Your task to perform on an android device: uninstall "Google Pay: Save, Pay, Manage" Image 0: 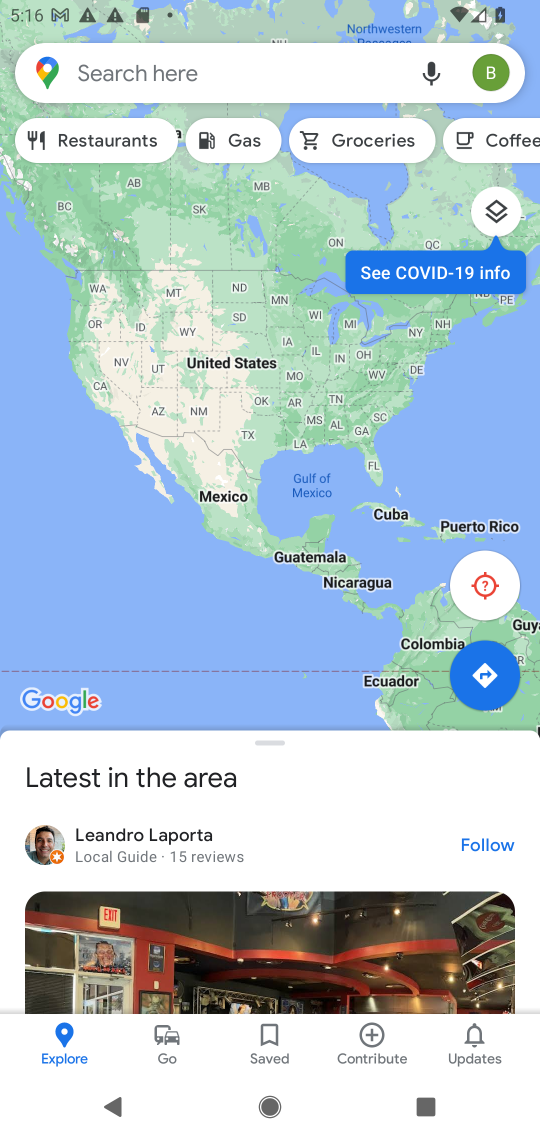
Step 0: click (229, 71)
Your task to perform on an android device: uninstall "Google Pay: Save, Pay, Manage" Image 1: 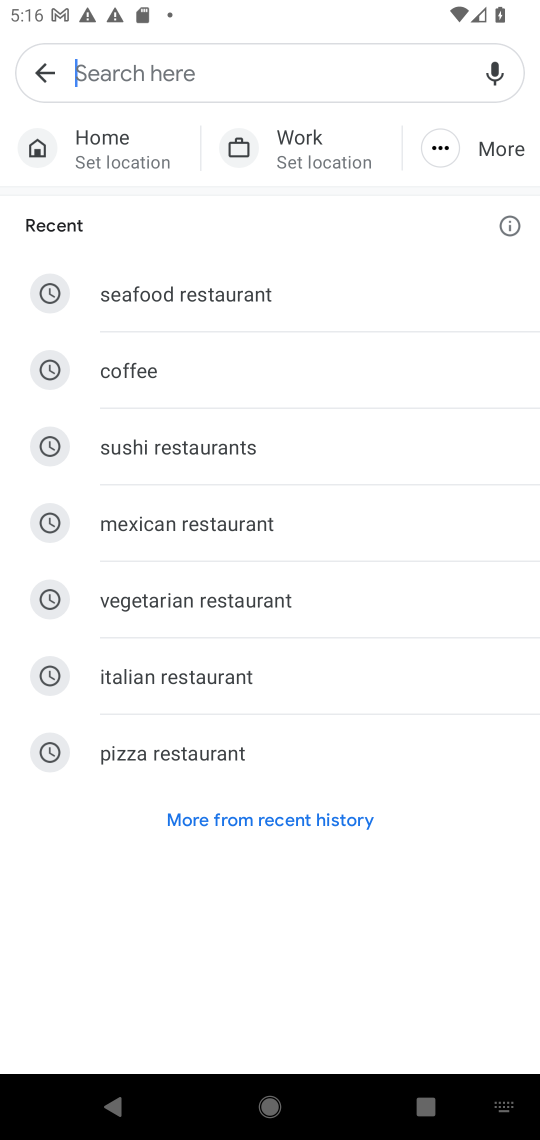
Step 1: type "Google Pay: Save, Pay, Manage"
Your task to perform on an android device: uninstall "Google Pay: Save, Pay, Manage" Image 2: 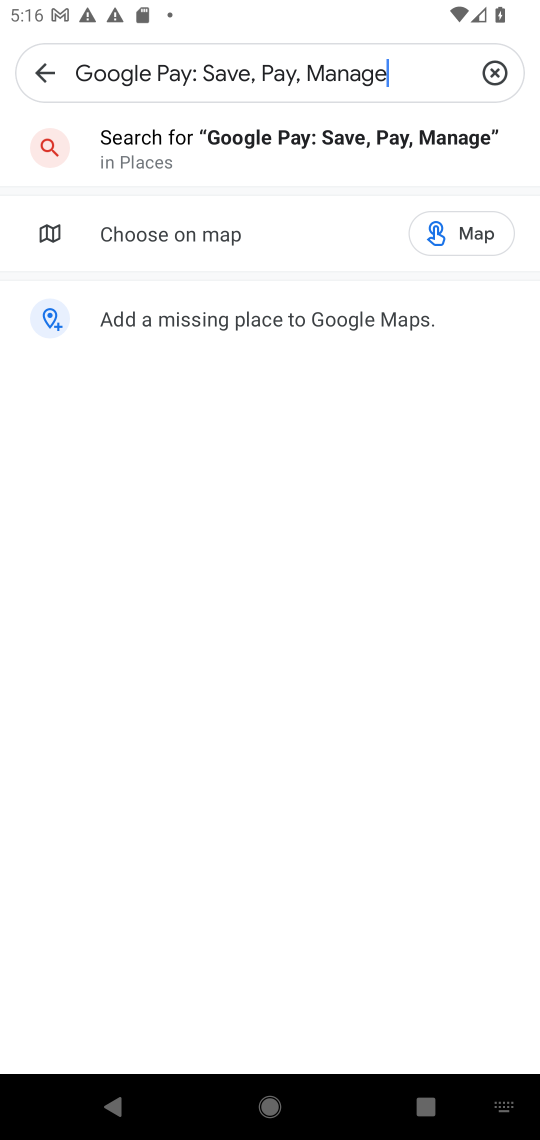
Step 2: press home button
Your task to perform on an android device: uninstall "Google Pay: Save, Pay, Manage" Image 3: 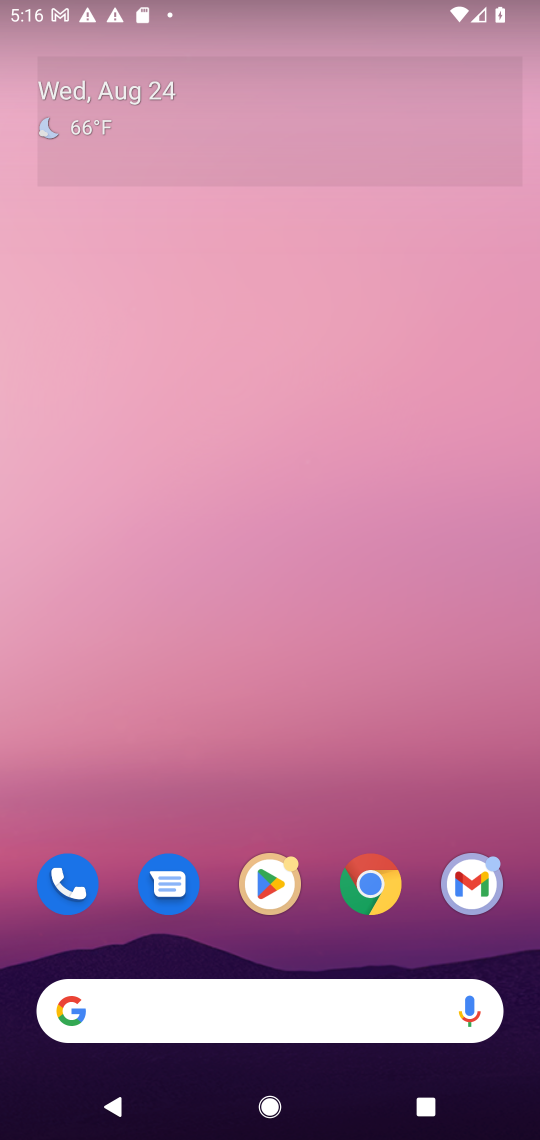
Step 3: click (255, 889)
Your task to perform on an android device: uninstall "Google Pay: Save, Pay, Manage" Image 4: 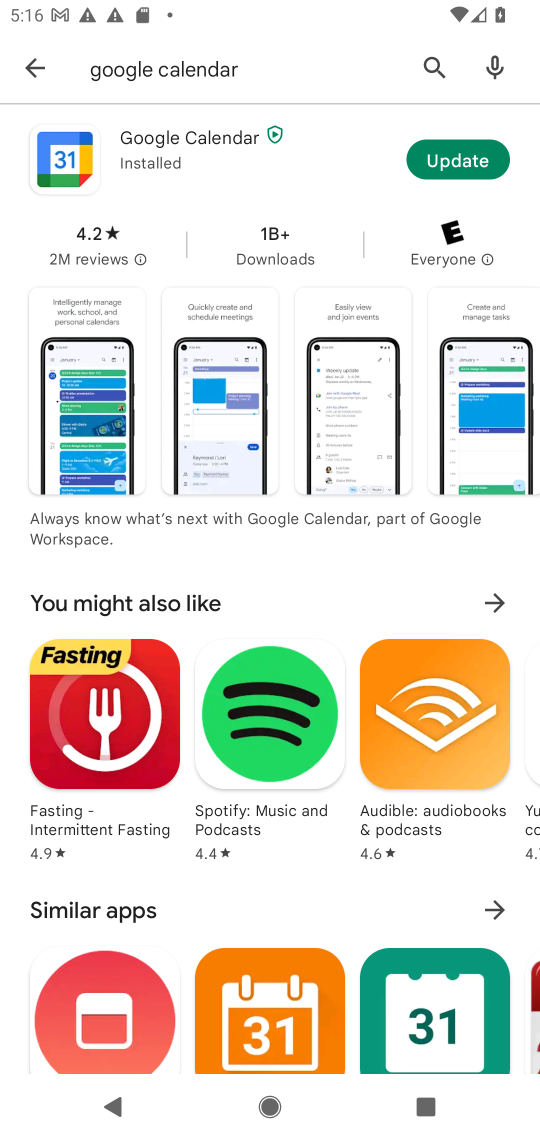
Step 4: click (27, 57)
Your task to perform on an android device: uninstall "Google Pay: Save, Pay, Manage" Image 5: 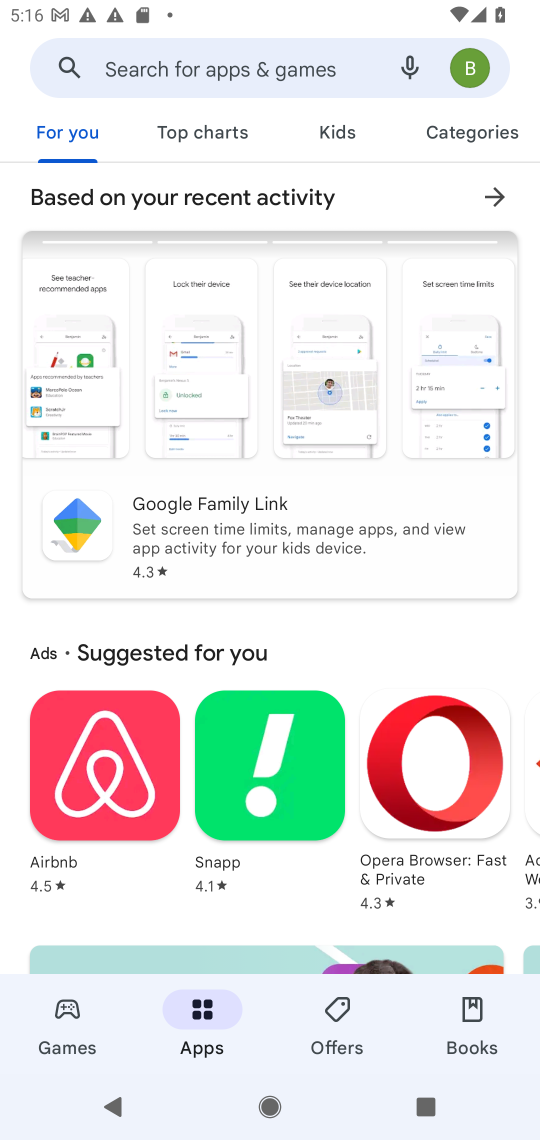
Step 5: click (187, 51)
Your task to perform on an android device: uninstall "Google Pay: Save, Pay, Manage" Image 6: 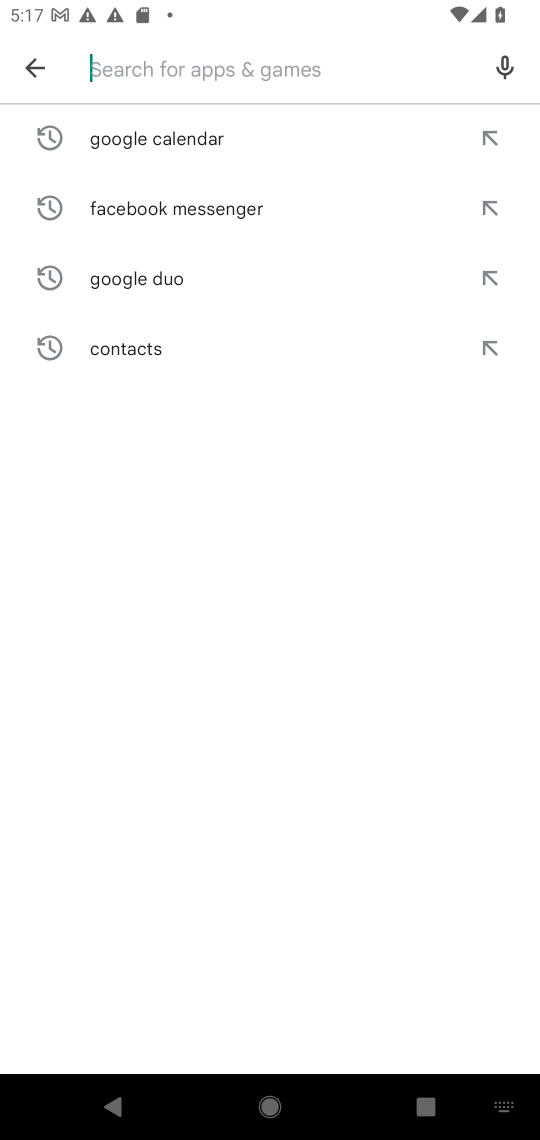
Step 6: type "Google Pay:"
Your task to perform on an android device: uninstall "Google Pay: Save, Pay, Manage" Image 7: 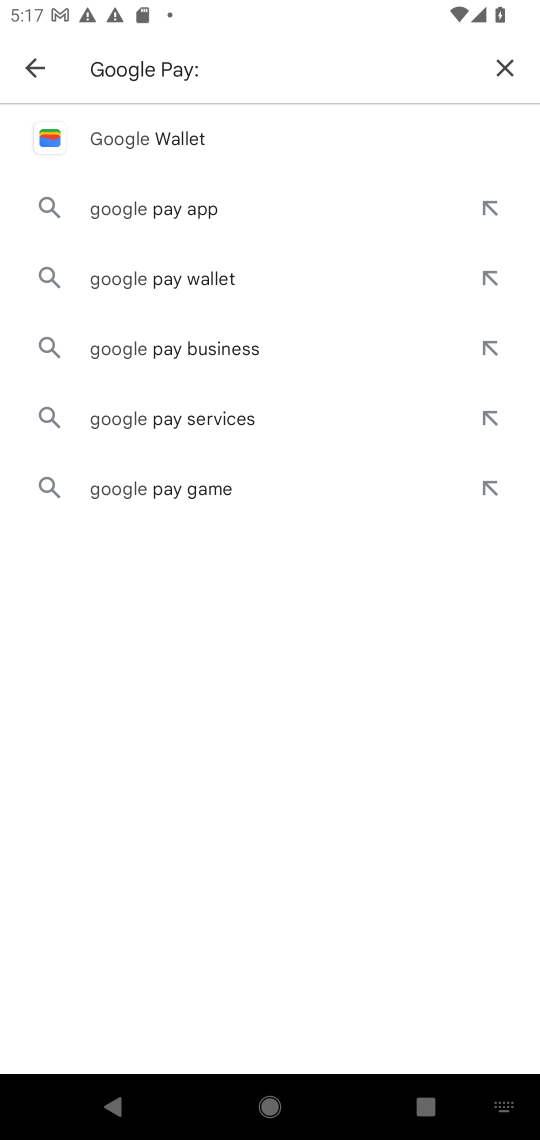
Step 7: click (204, 211)
Your task to perform on an android device: uninstall "Google Pay: Save, Pay, Manage" Image 8: 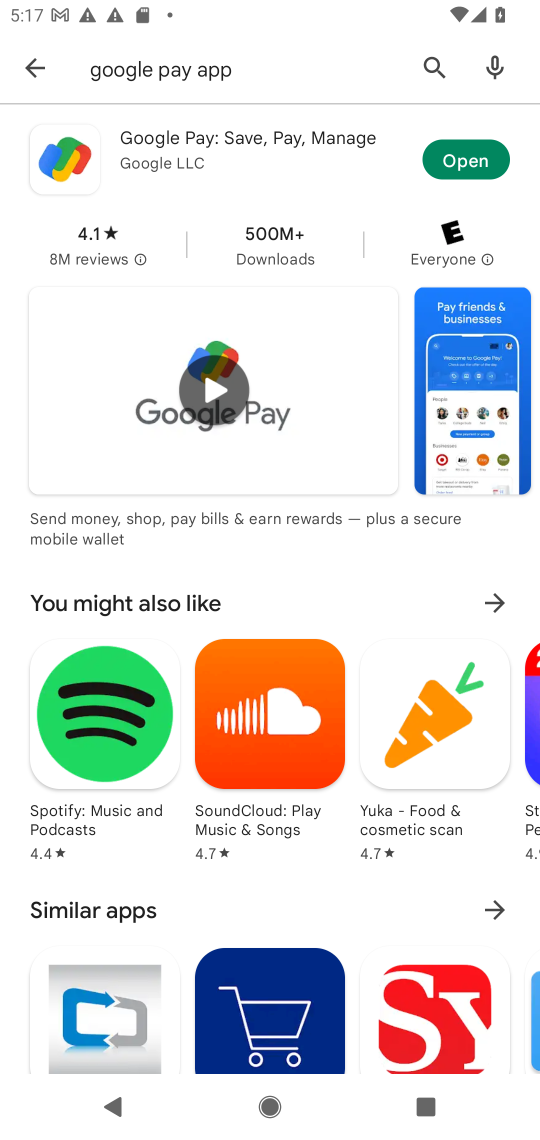
Step 8: click (252, 146)
Your task to perform on an android device: uninstall "Google Pay: Save, Pay, Manage" Image 9: 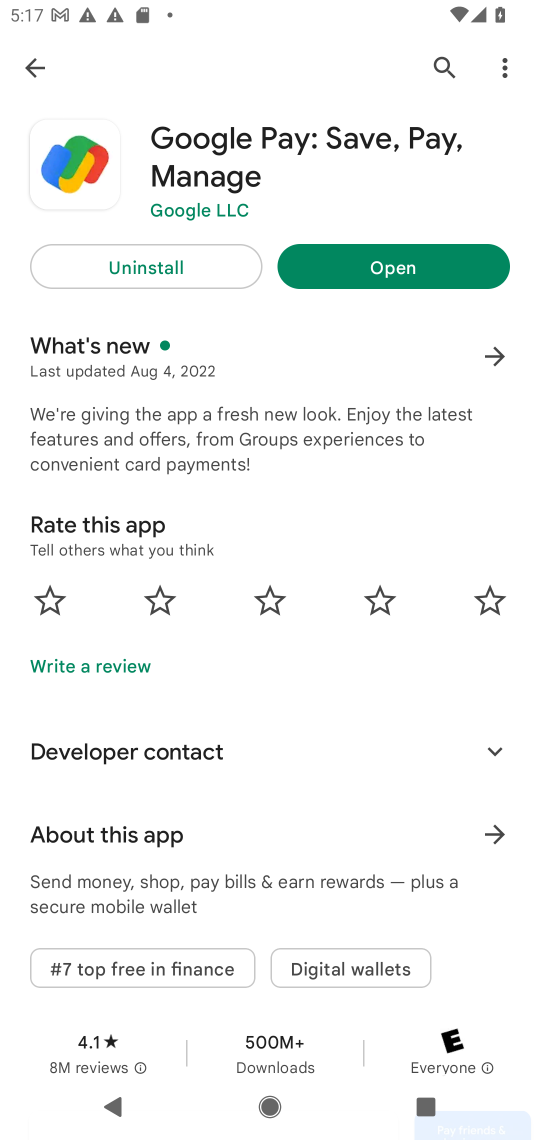
Step 9: click (123, 259)
Your task to perform on an android device: uninstall "Google Pay: Save, Pay, Manage" Image 10: 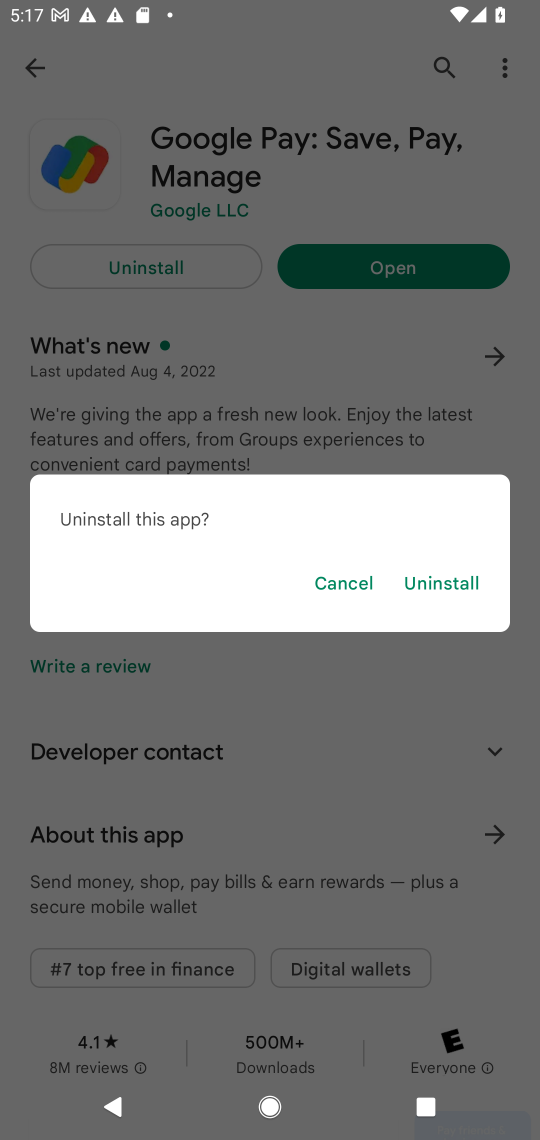
Step 10: click (427, 588)
Your task to perform on an android device: uninstall "Google Pay: Save, Pay, Manage" Image 11: 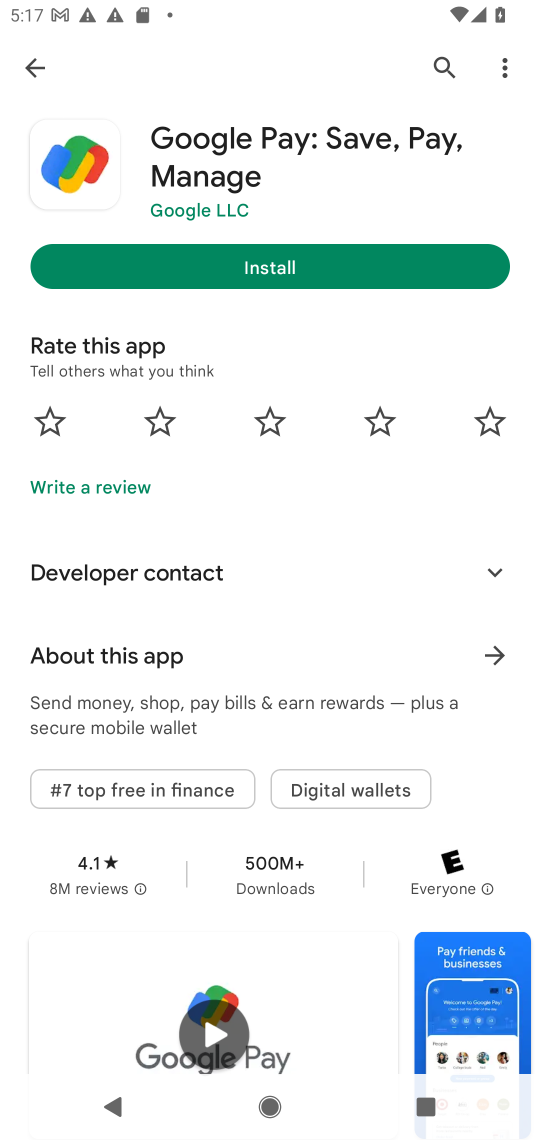
Step 11: task complete